Your task to perform on an android device: turn off airplane mode Image 0: 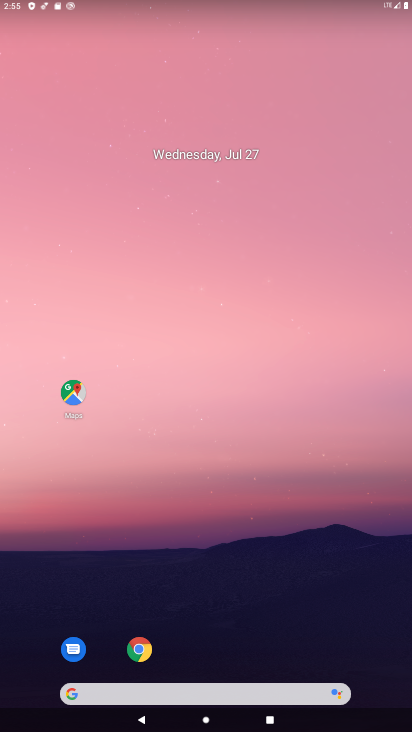
Step 0: drag from (240, 6) to (259, 393)
Your task to perform on an android device: turn off airplane mode Image 1: 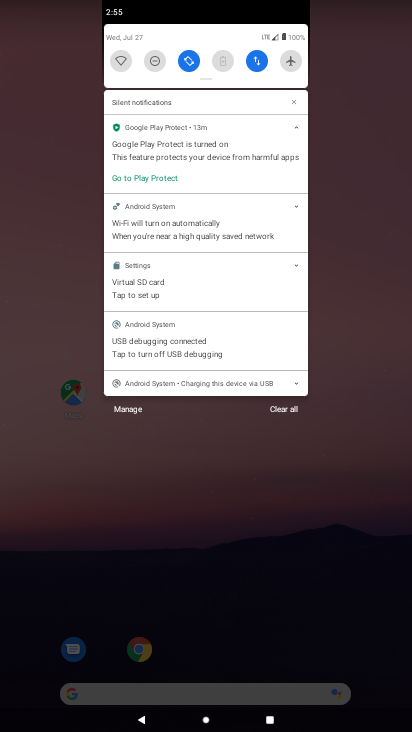
Step 1: task complete